Your task to perform on an android device: Search for the best vacuum on Amazon. Image 0: 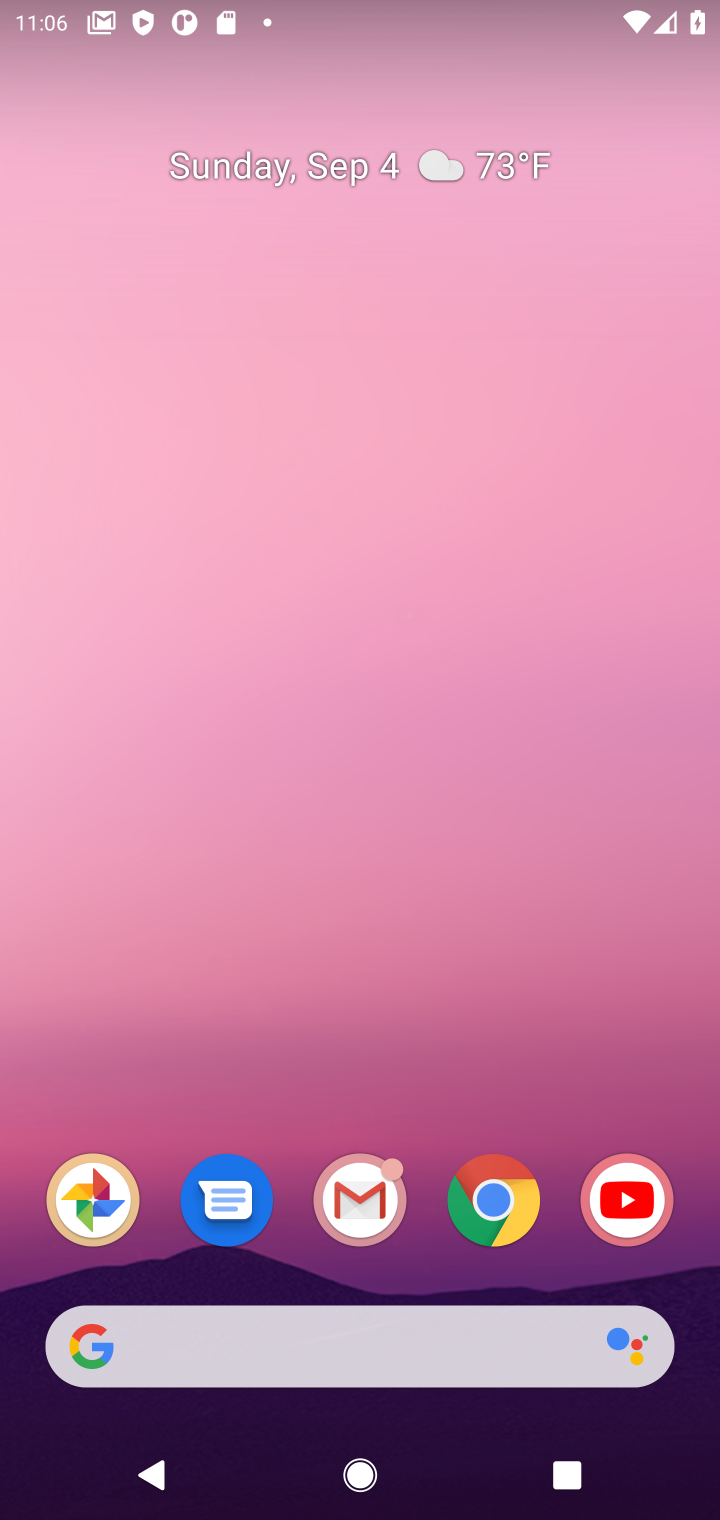
Step 0: click (525, 1206)
Your task to perform on an android device: Search for the best vacuum on Amazon. Image 1: 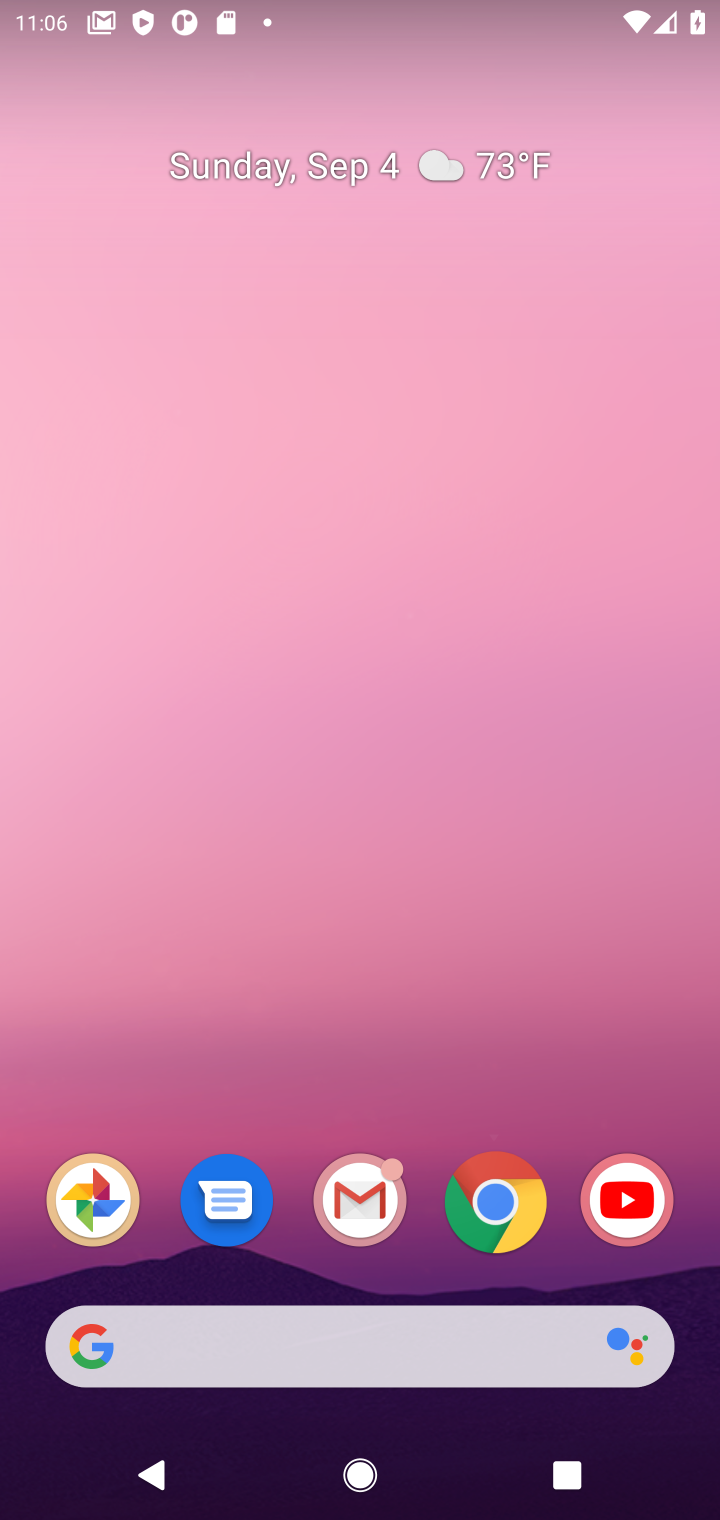
Step 1: click (528, 1214)
Your task to perform on an android device: Search for the best vacuum on Amazon. Image 2: 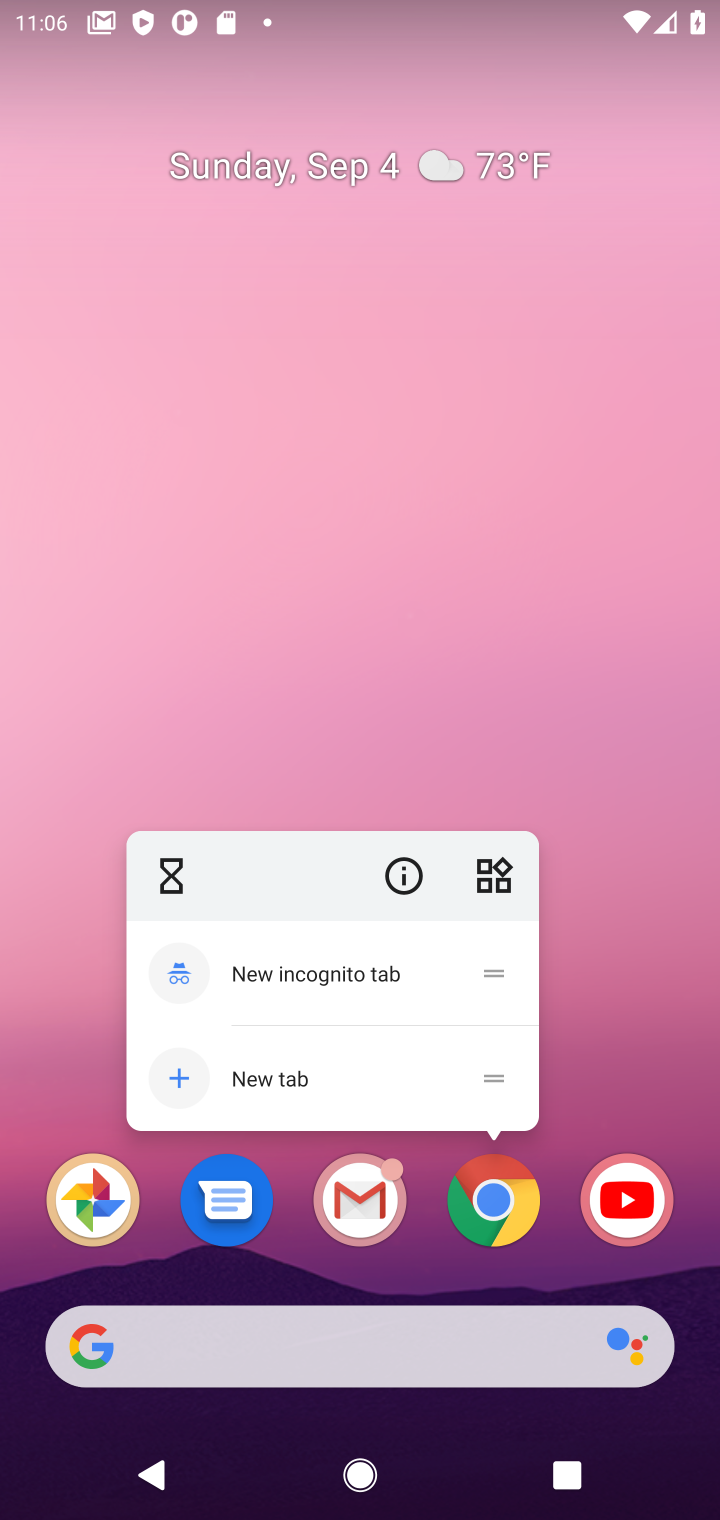
Step 2: click (366, 584)
Your task to perform on an android device: Search for the best vacuum on Amazon. Image 3: 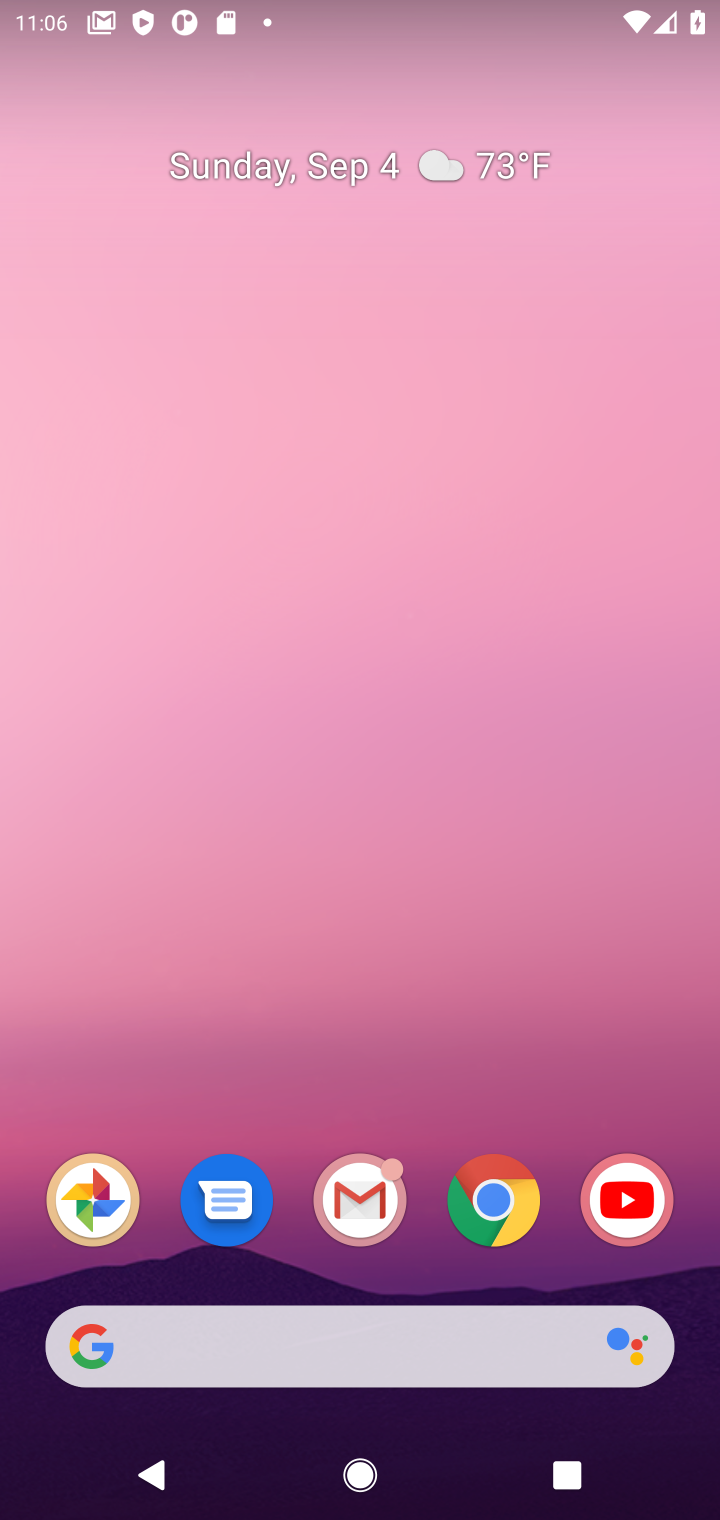
Step 3: click (486, 1230)
Your task to perform on an android device: Search for the best vacuum on Amazon. Image 4: 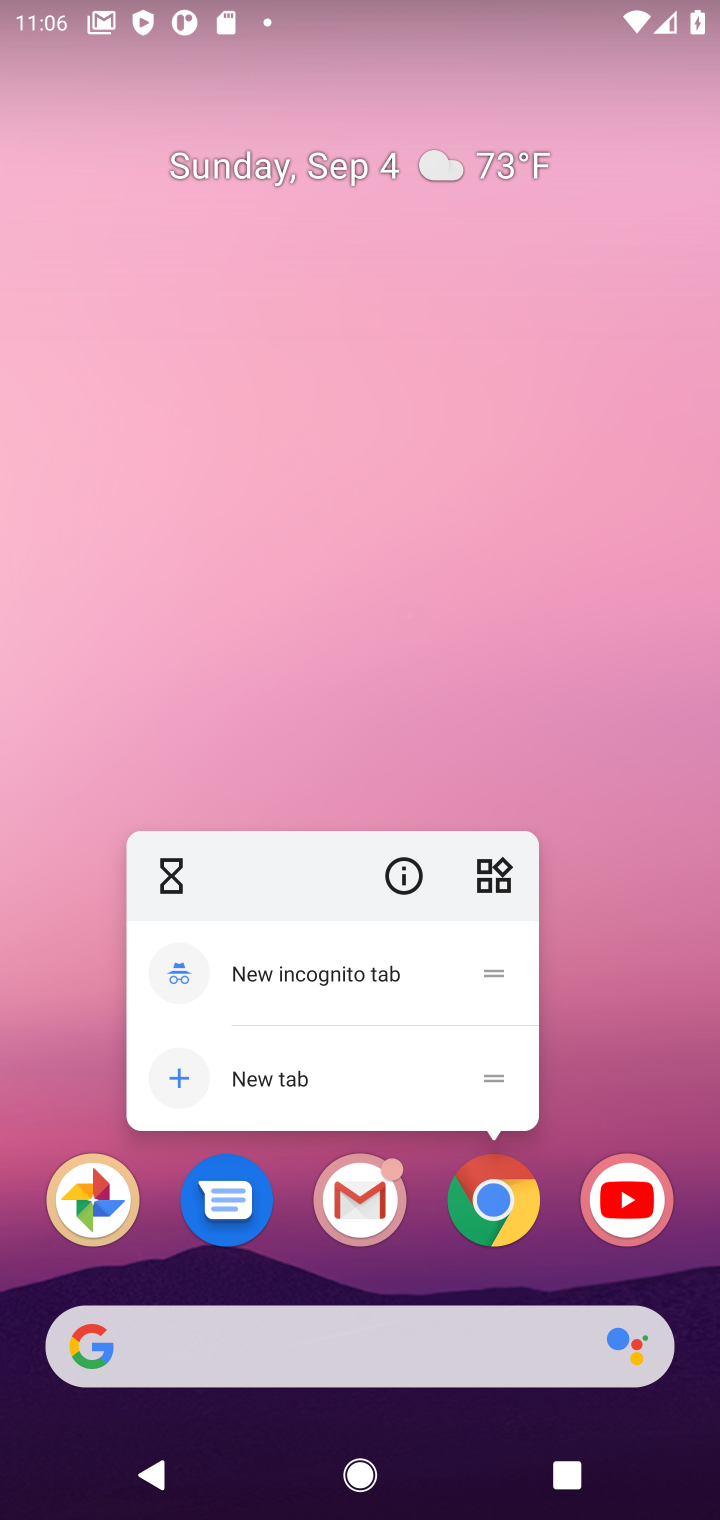
Step 4: click (486, 1230)
Your task to perform on an android device: Search for the best vacuum on Amazon. Image 5: 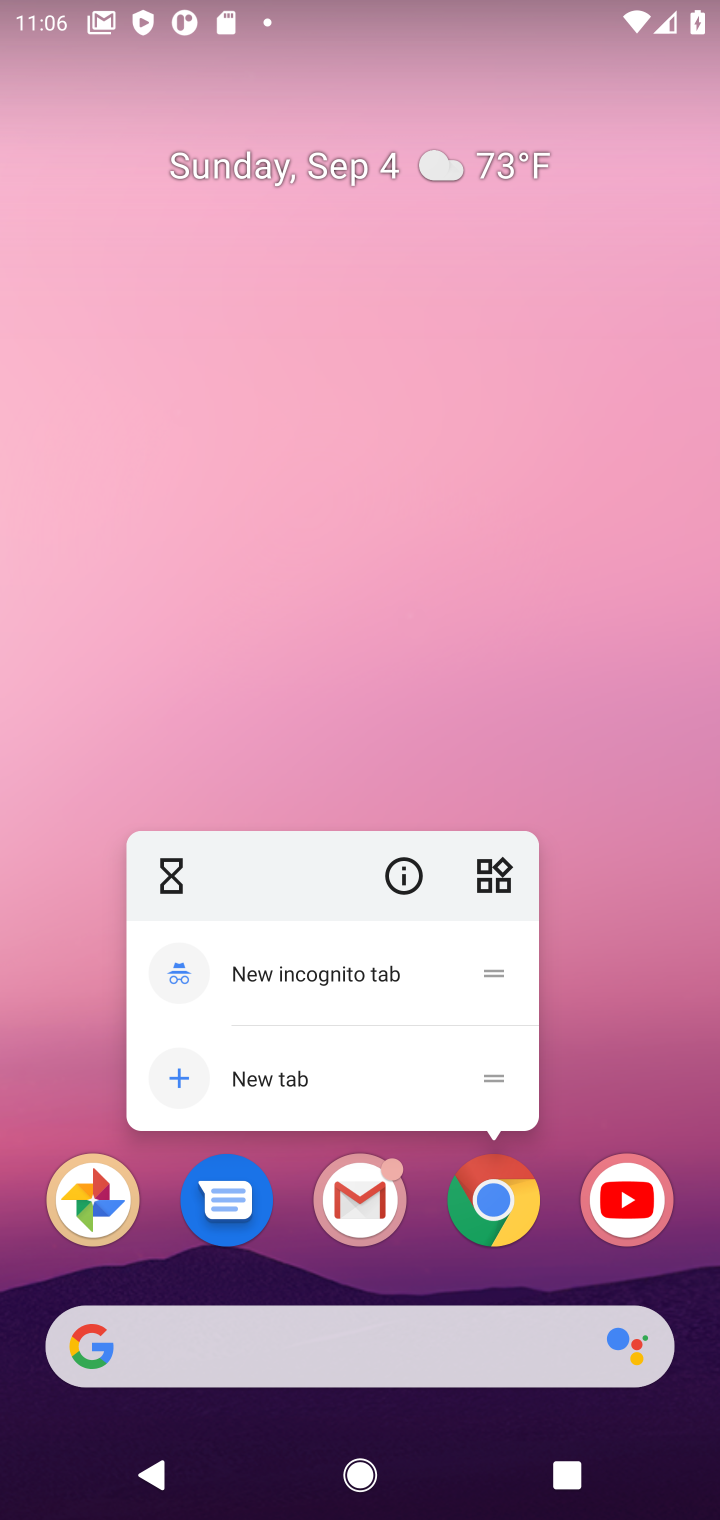
Step 5: click (505, 1225)
Your task to perform on an android device: Search for the best vacuum on Amazon. Image 6: 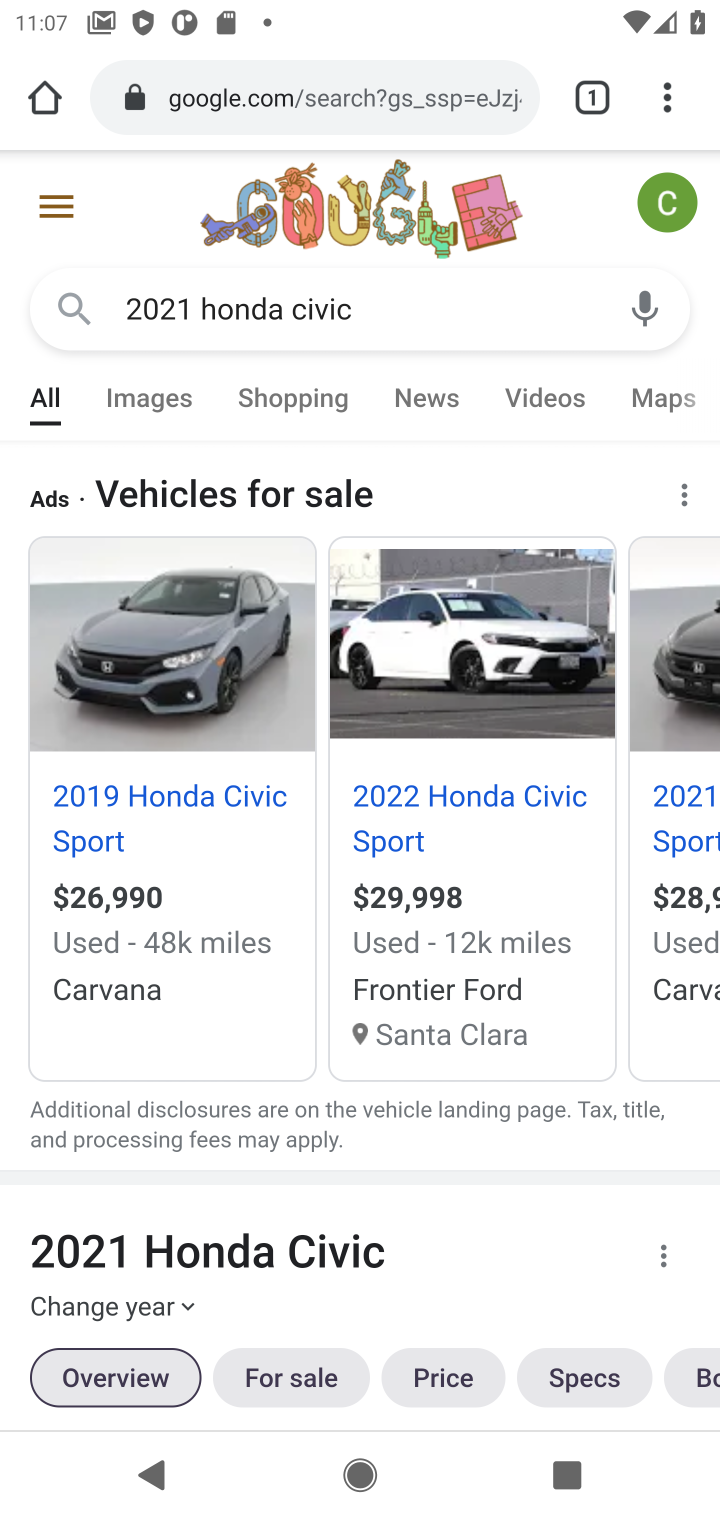
Step 6: click (443, 108)
Your task to perform on an android device: Search for the best vacuum on Amazon. Image 7: 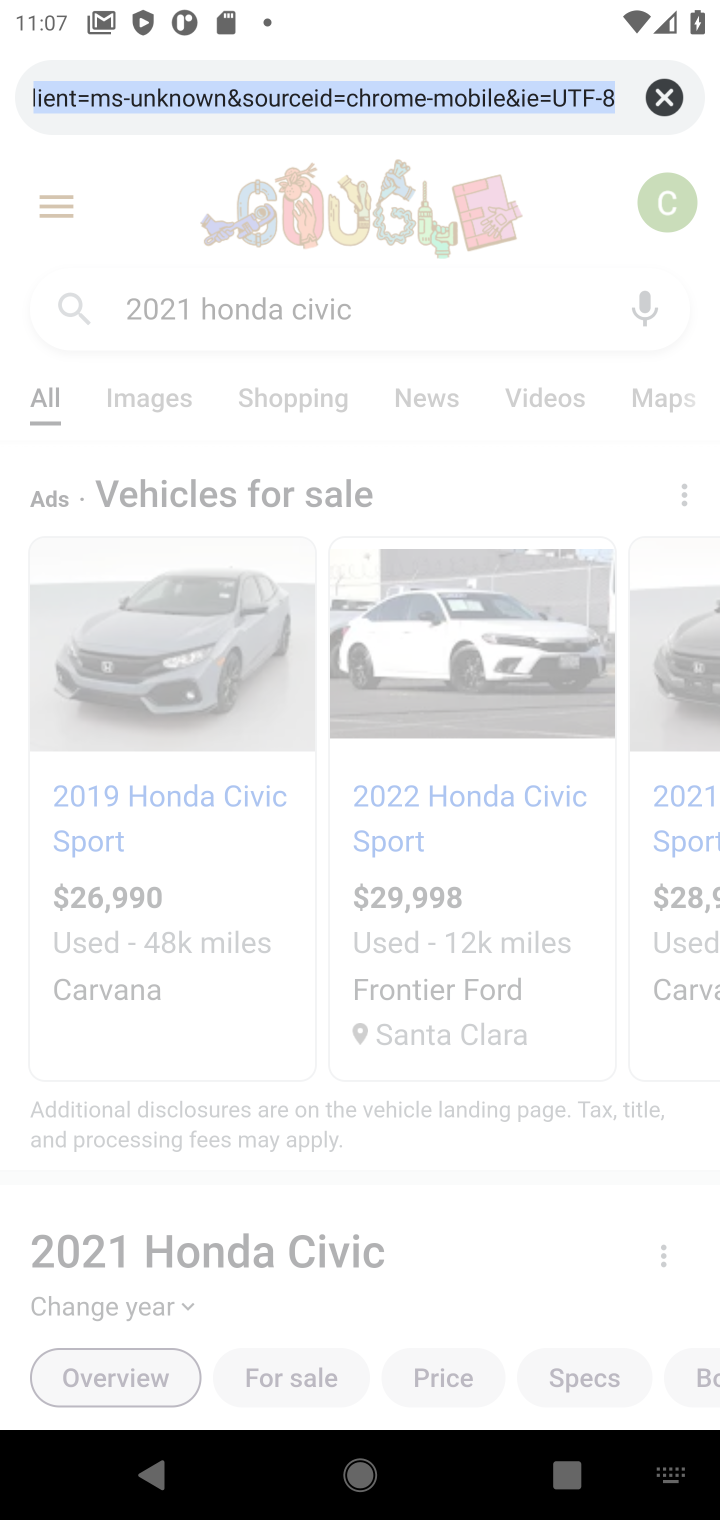
Step 7: type "amazon"
Your task to perform on an android device: Search for the best vacuum on Amazon. Image 8: 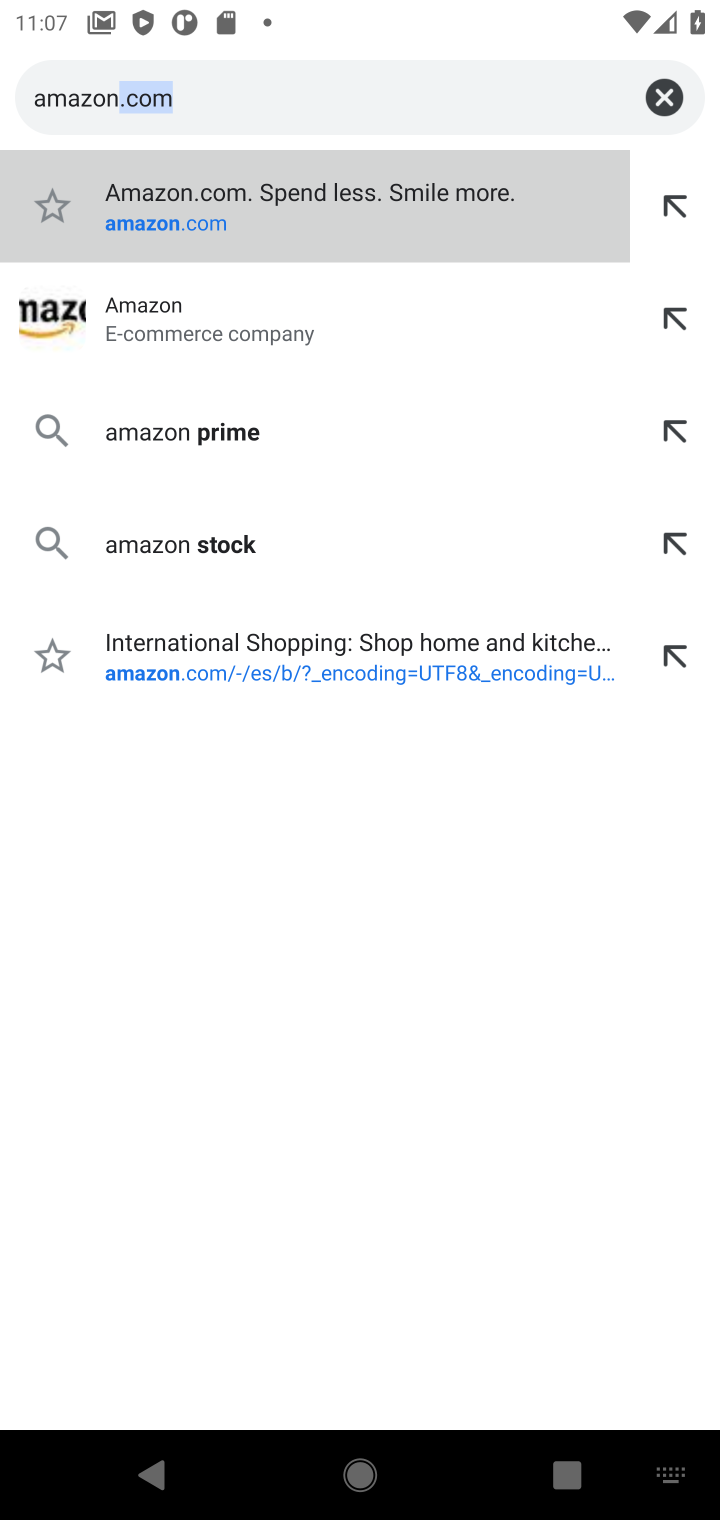
Step 8: click (317, 195)
Your task to perform on an android device: Search for the best vacuum on Amazon. Image 9: 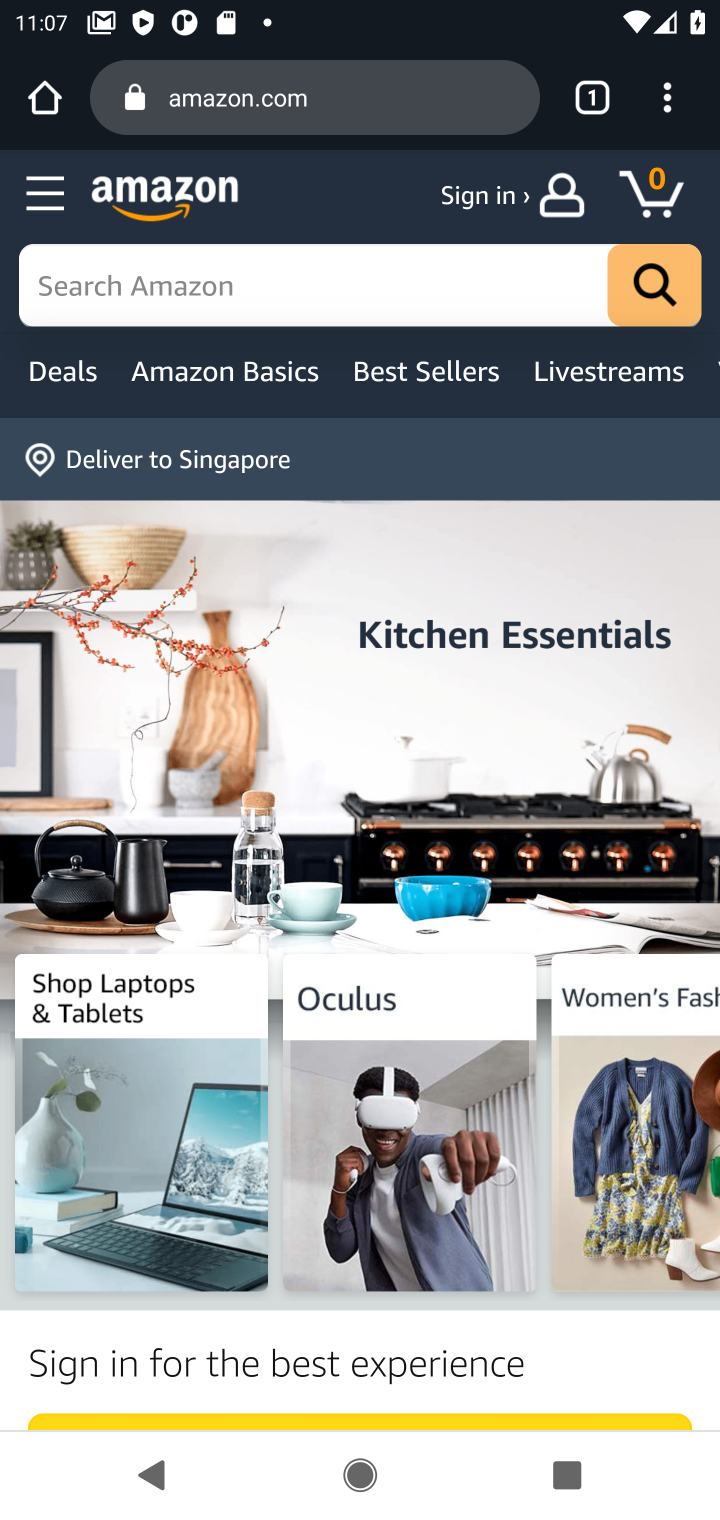
Step 9: click (475, 293)
Your task to perform on an android device: Search for the best vacuum on Amazon. Image 10: 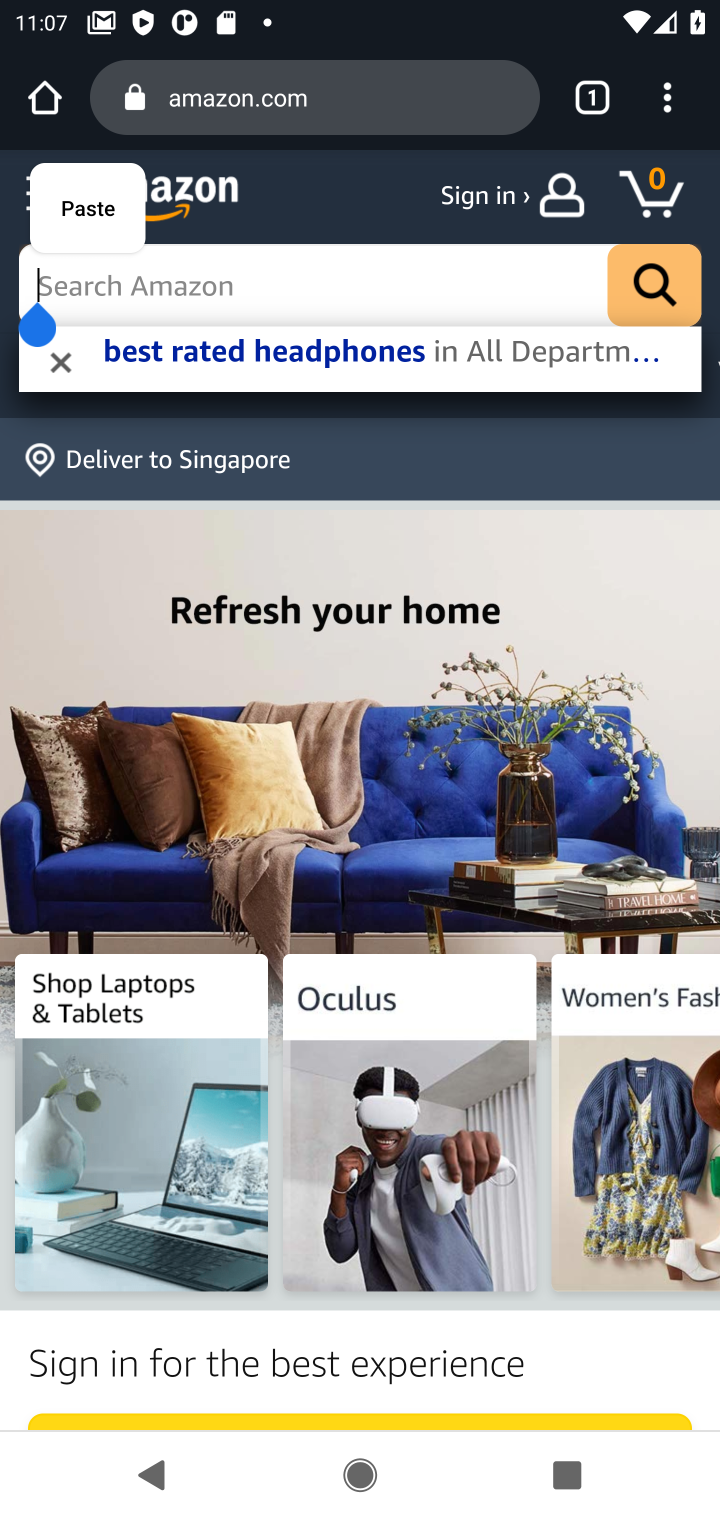
Step 10: type "best veccume"
Your task to perform on an android device: Search for the best vacuum on Amazon. Image 11: 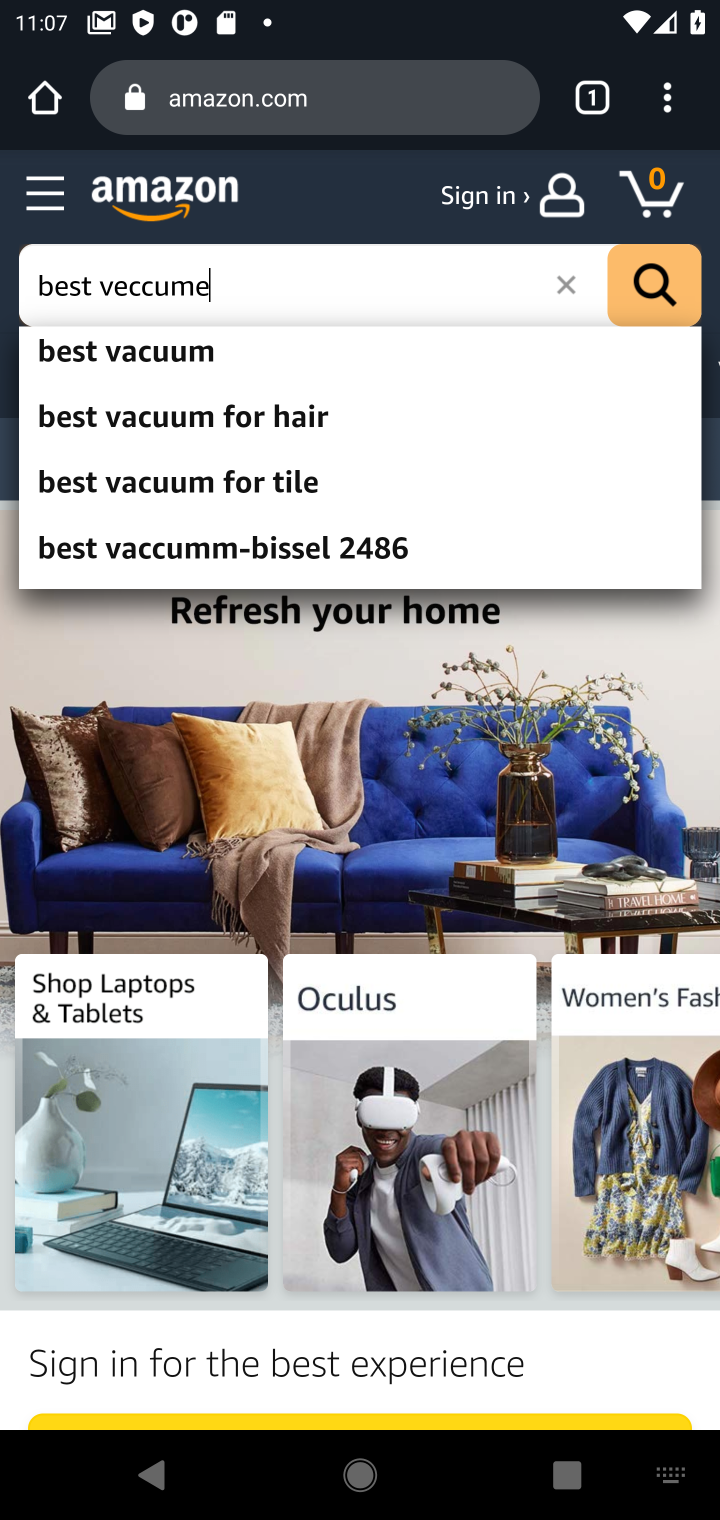
Step 11: click (232, 357)
Your task to perform on an android device: Search for the best vacuum on Amazon. Image 12: 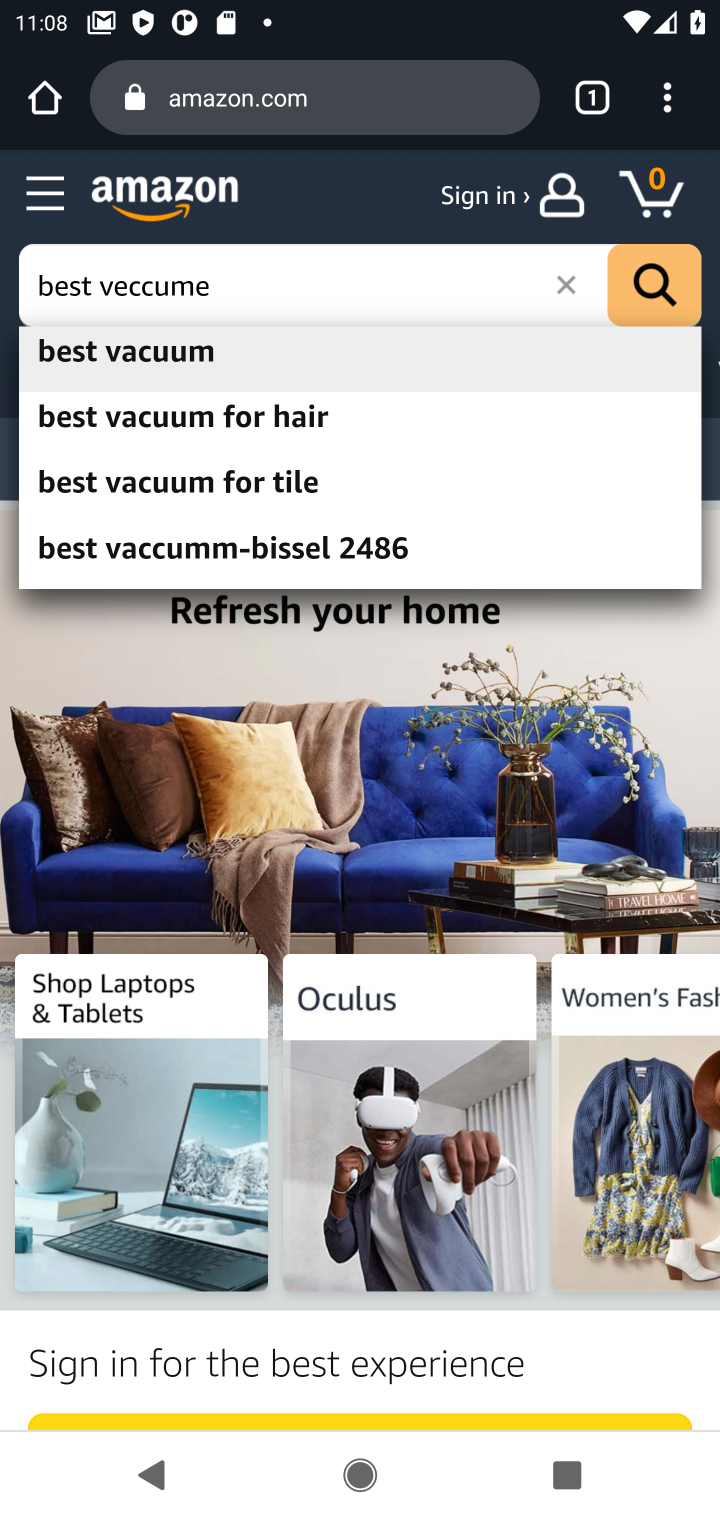
Step 12: click (232, 357)
Your task to perform on an android device: Search for the best vacuum on Amazon. Image 13: 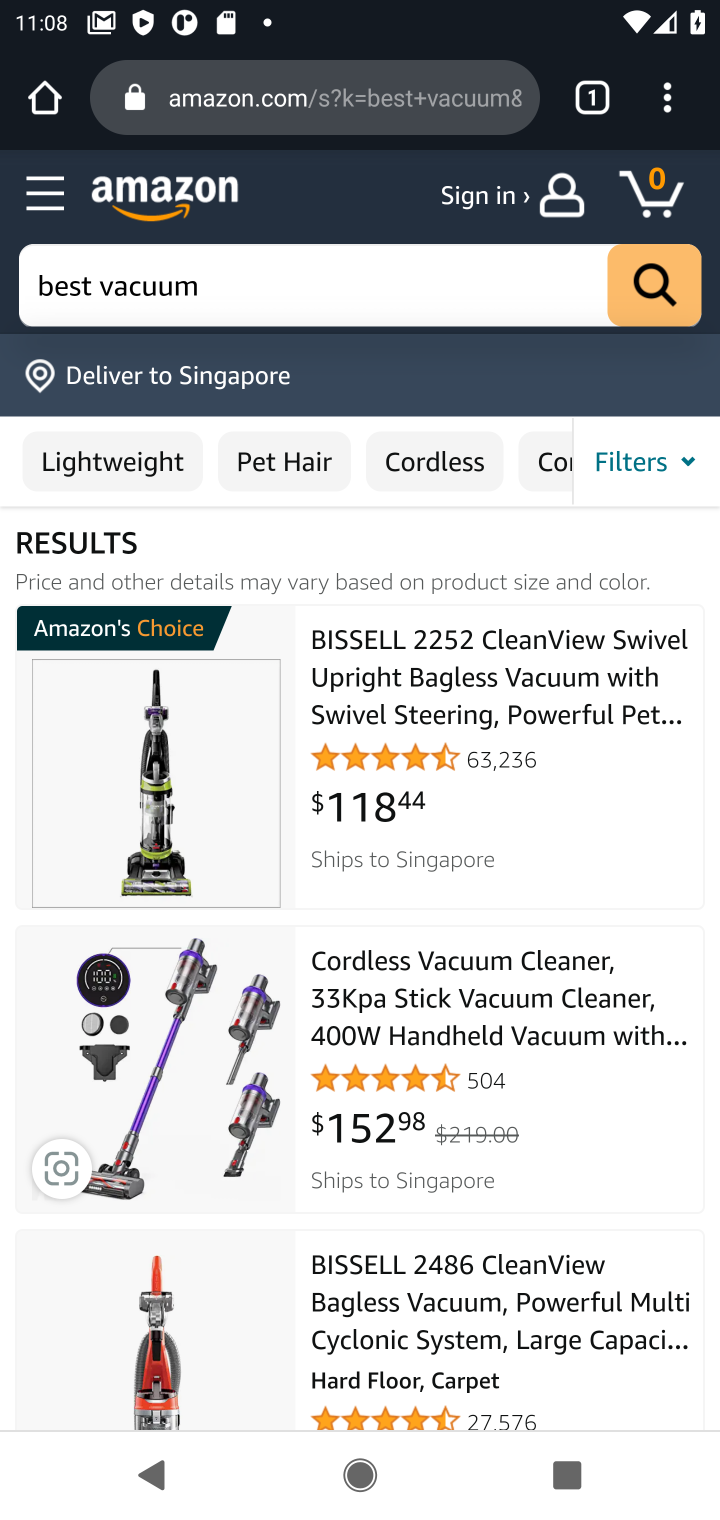
Step 13: task complete